Your task to perform on an android device: change the clock display to show seconds Image 0: 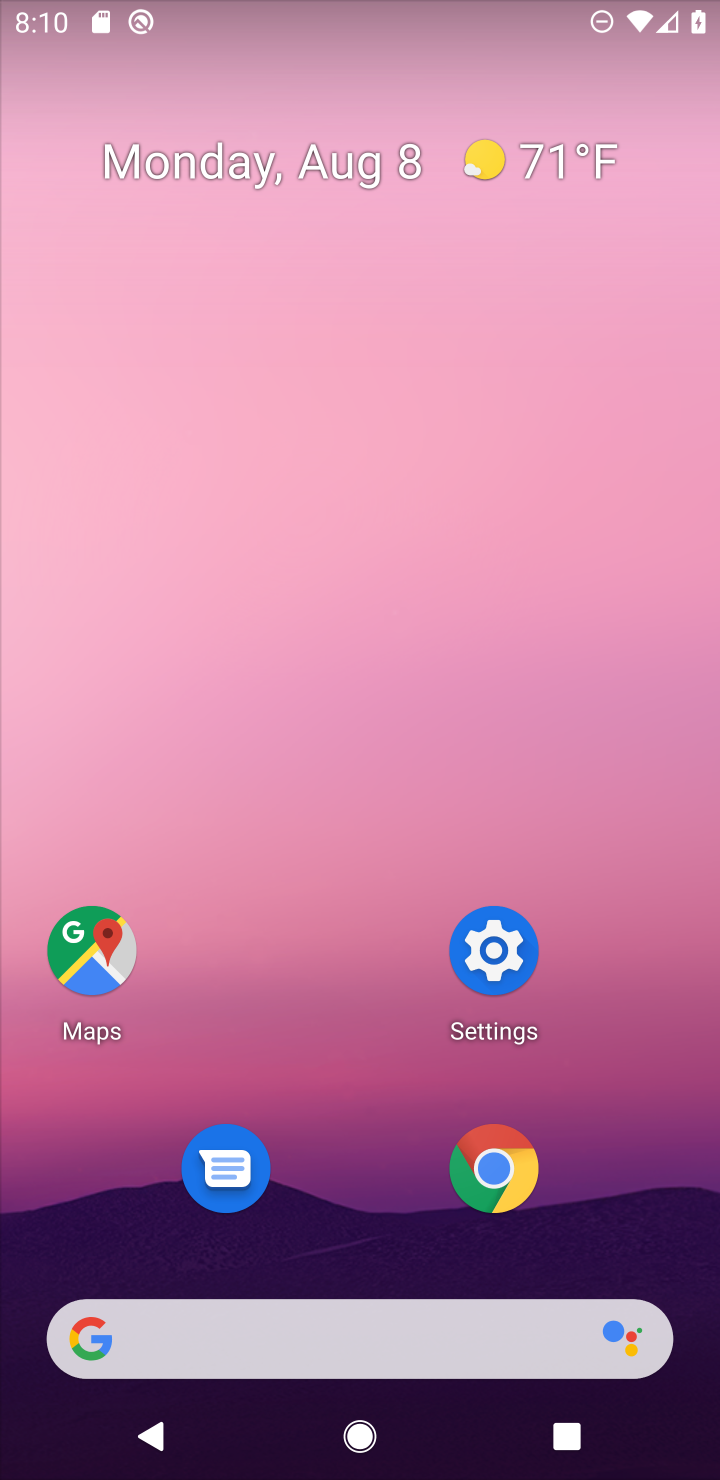
Step 0: press home button
Your task to perform on an android device: change the clock display to show seconds Image 1: 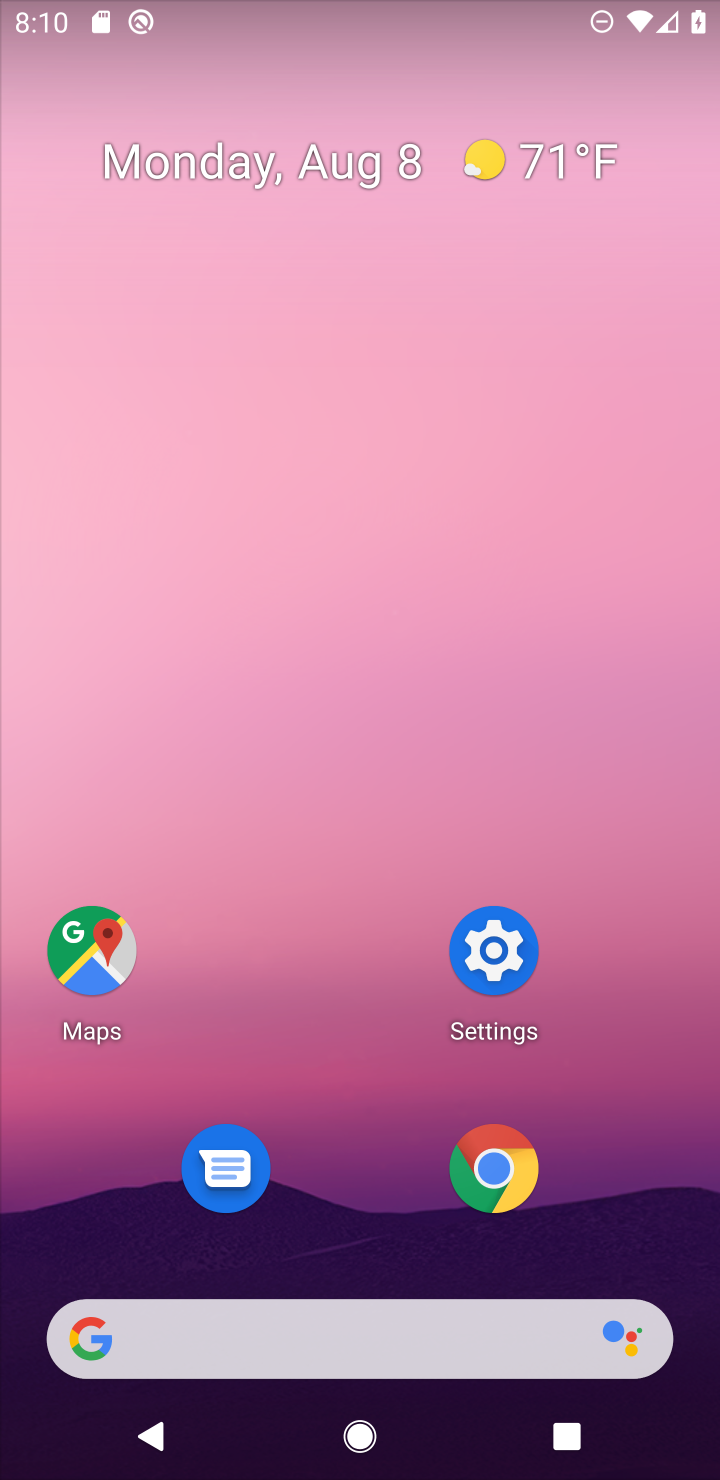
Step 1: drag from (502, 944) to (707, 309)
Your task to perform on an android device: change the clock display to show seconds Image 2: 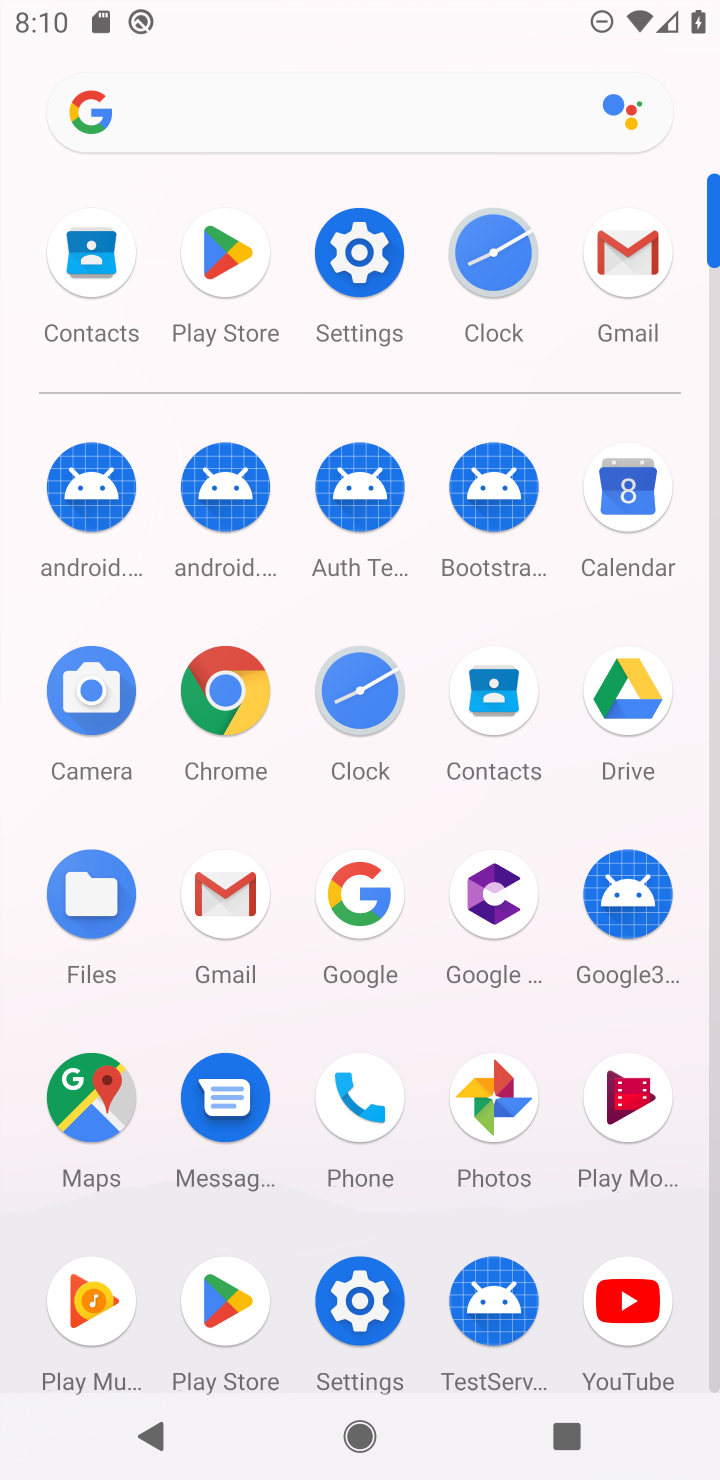
Step 2: click (360, 693)
Your task to perform on an android device: change the clock display to show seconds Image 3: 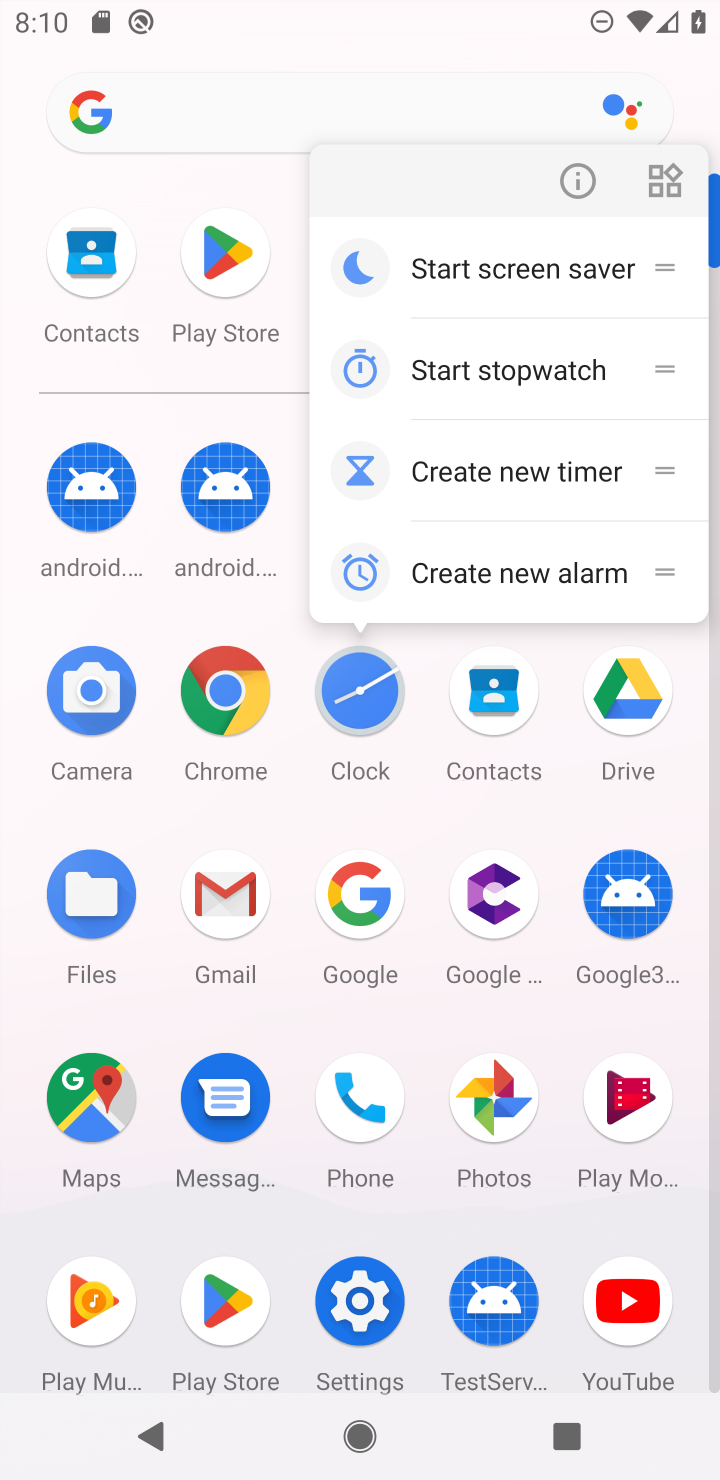
Step 3: click (377, 693)
Your task to perform on an android device: change the clock display to show seconds Image 4: 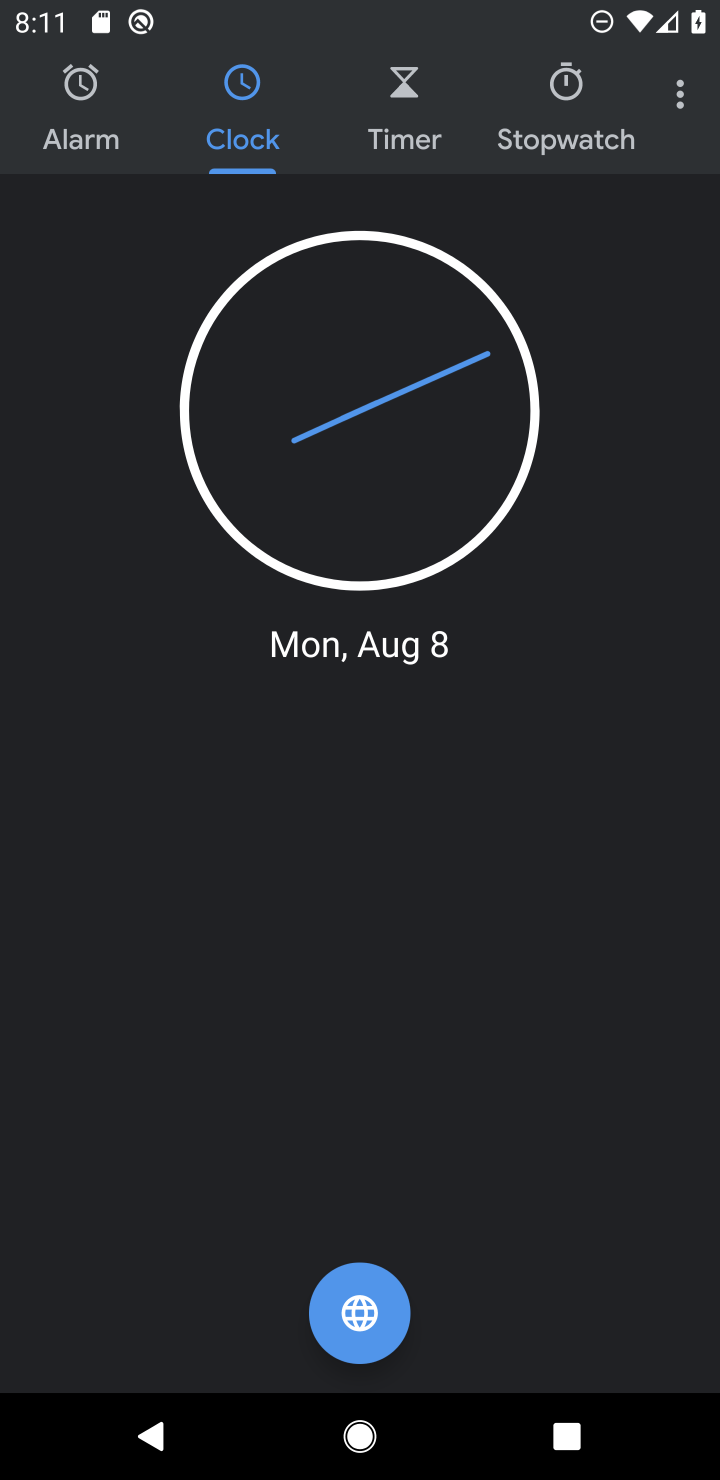
Step 4: click (686, 83)
Your task to perform on an android device: change the clock display to show seconds Image 5: 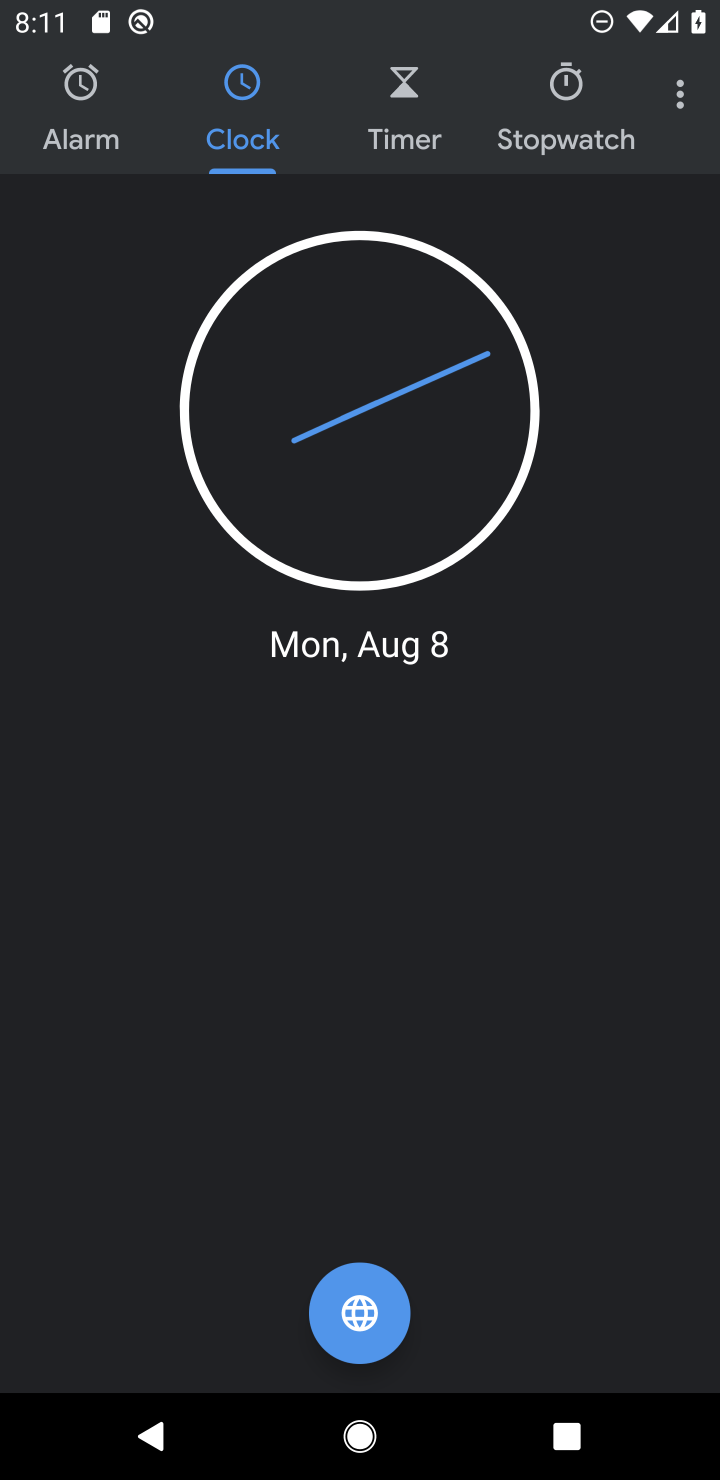
Step 5: click (677, 95)
Your task to perform on an android device: change the clock display to show seconds Image 6: 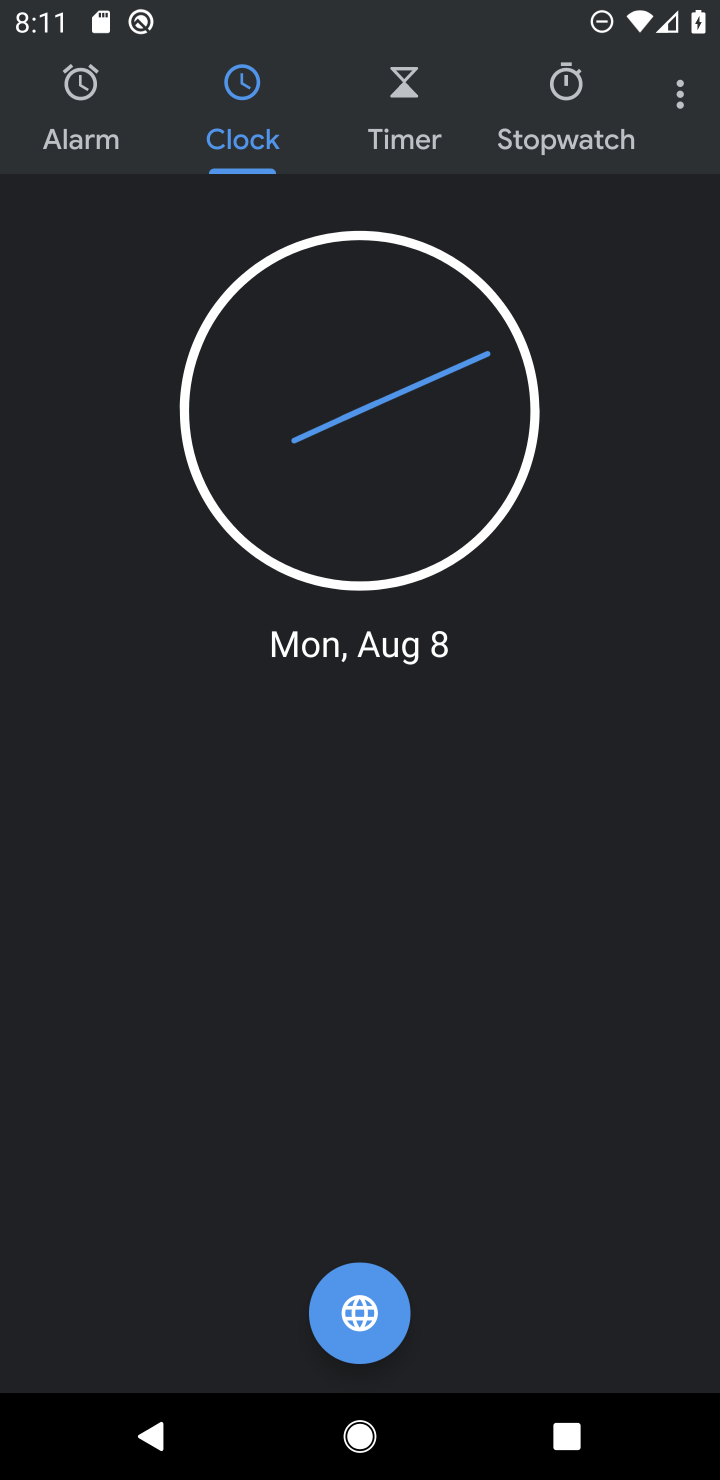
Step 6: click (688, 102)
Your task to perform on an android device: change the clock display to show seconds Image 7: 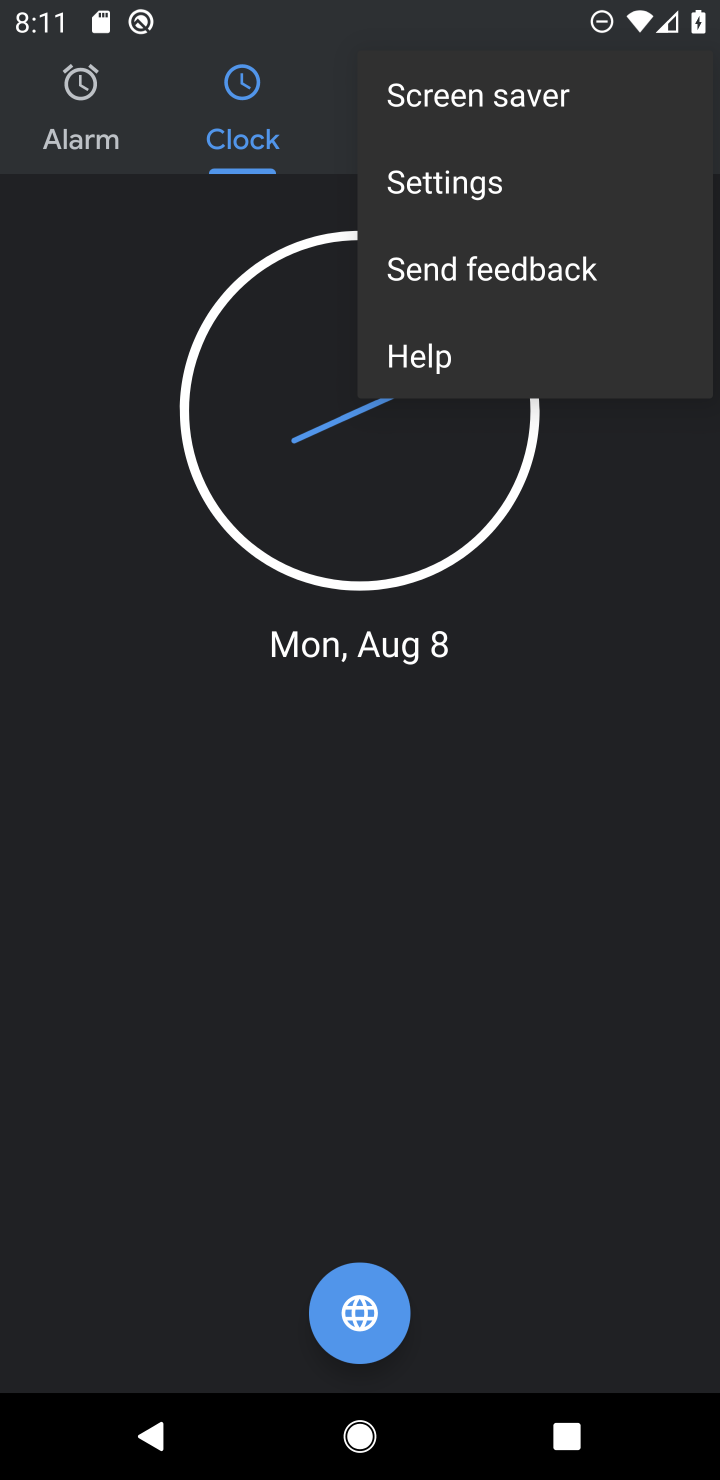
Step 7: click (475, 188)
Your task to perform on an android device: change the clock display to show seconds Image 8: 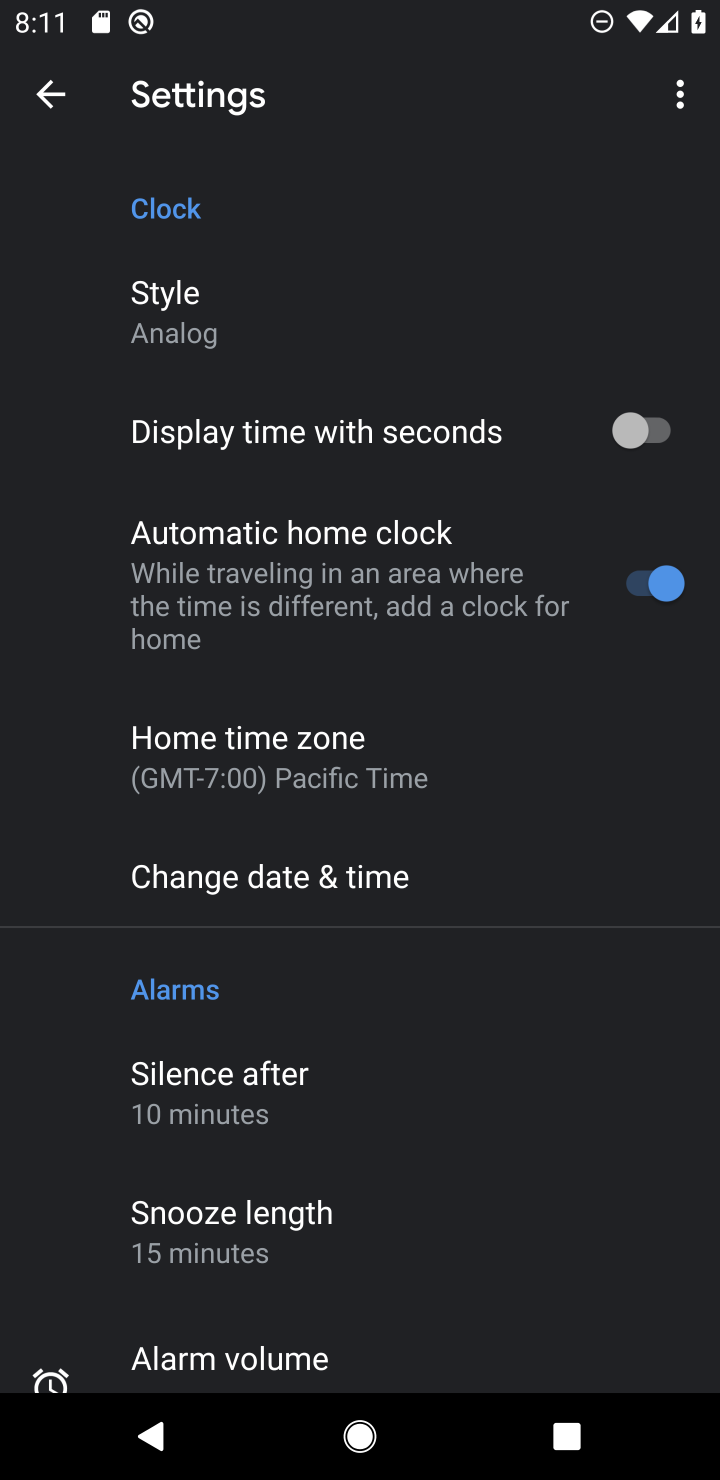
Step 8: click (650, 416)
Your task to perform on an android device: change the clock display to show seconds Image 9: 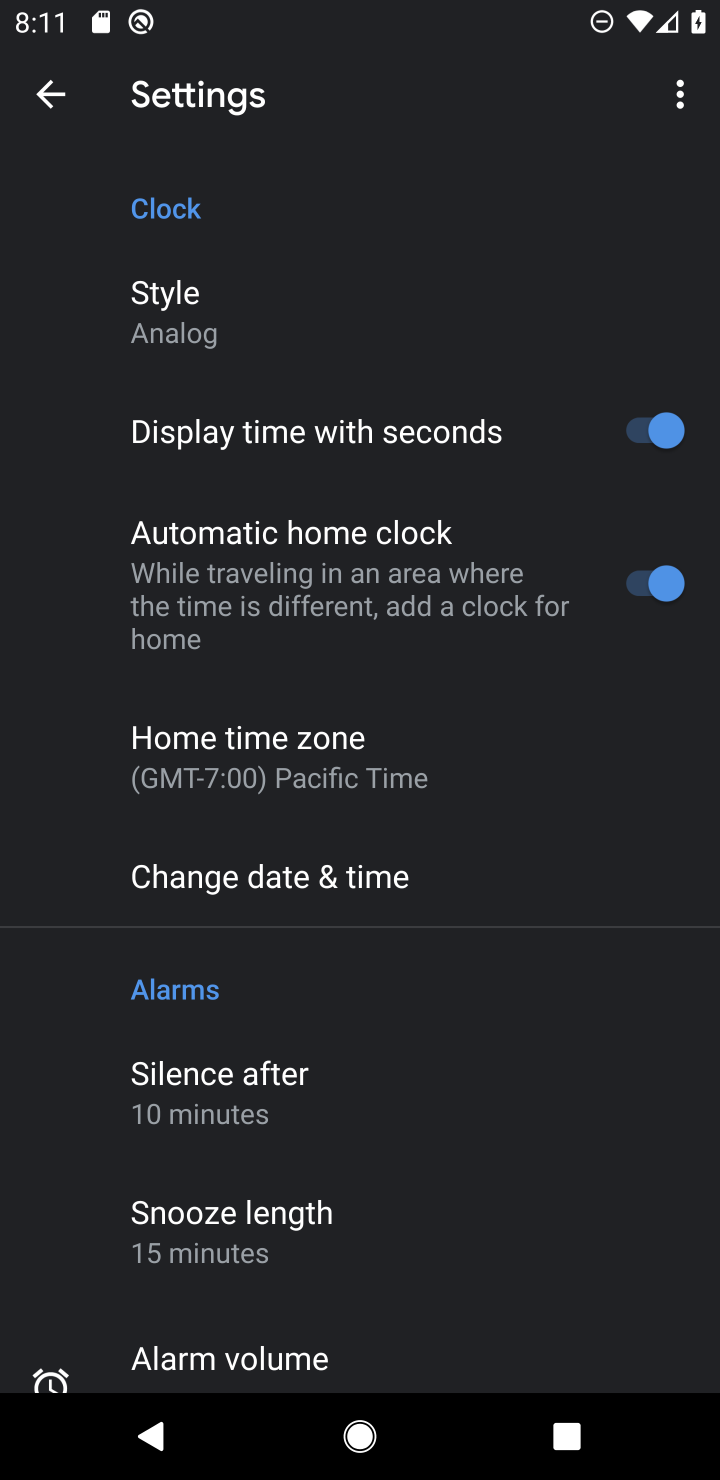
Step 9: task complete